Your task to perform on an android device: Go to wifi settings Image 0: 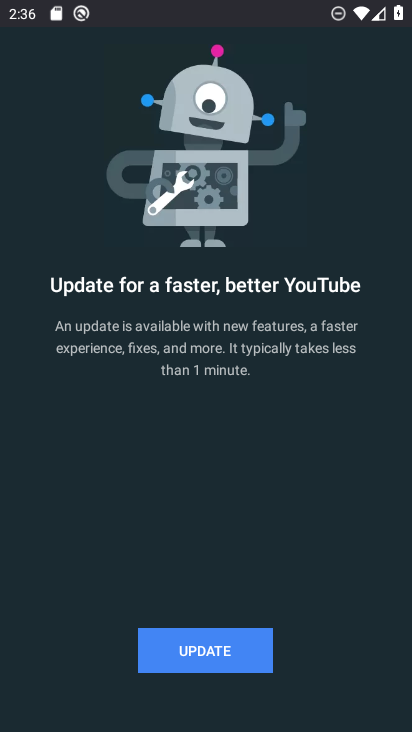
Step 0: press home button
Your task to perform on an android device: Go to wifi settings Image 1: 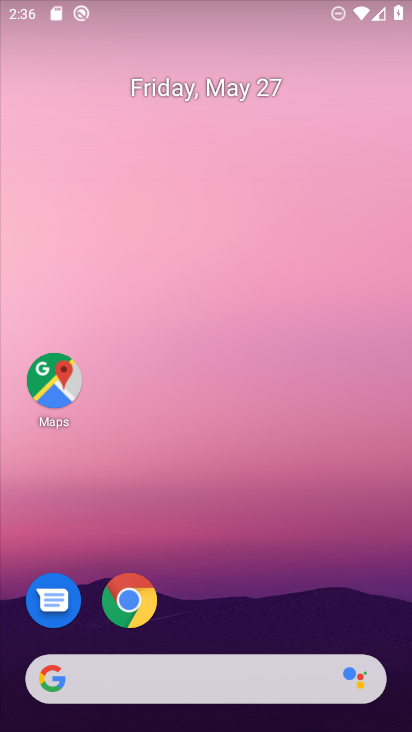
Step 1: drag from (210, 725) to (209, 59)
Your task to perform on an android device: Go to wifi settings Image 2: 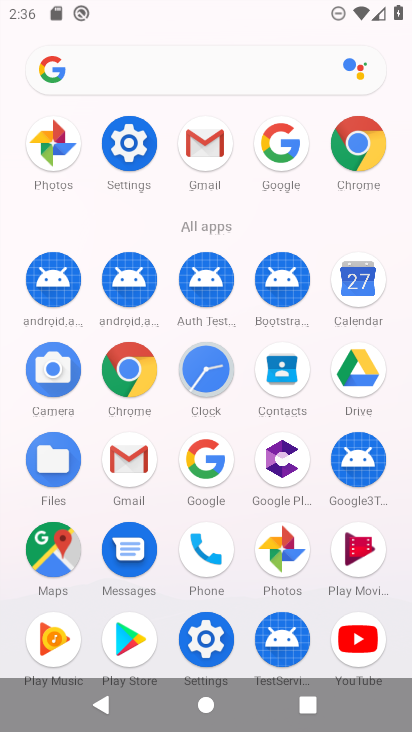
Step 2: click (123, 137)
Your task to perform on an android device: Go to wifi settings Image 3: 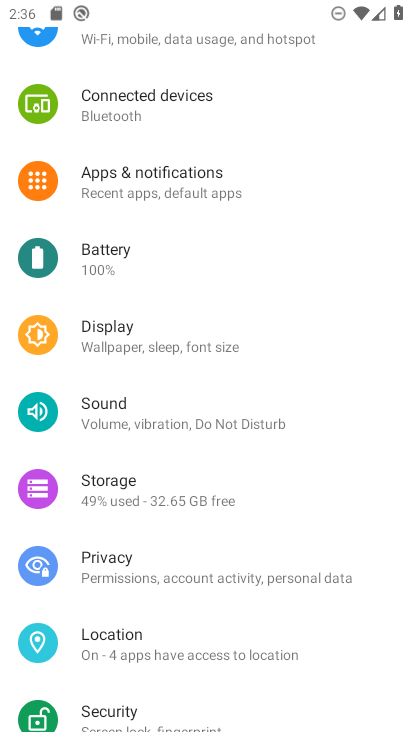
Step 3: drag from (248, 115) to (257, 541)
Your task to perform on an android device: Go to wifi settings Image 4: 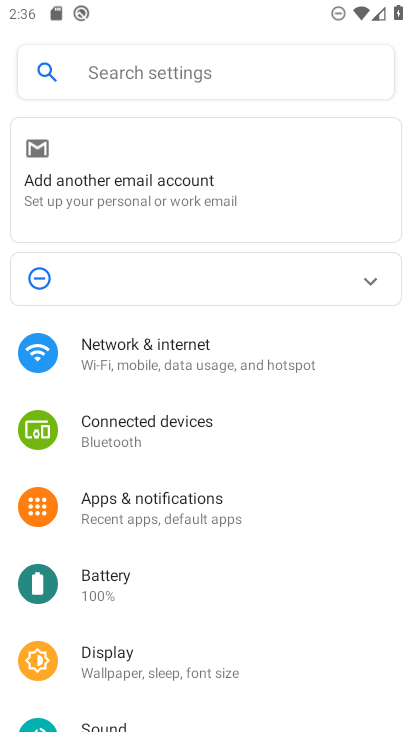
Step 4: click (147, 346)
Your task to perform on an android device: Go to wifi settings Image 5: 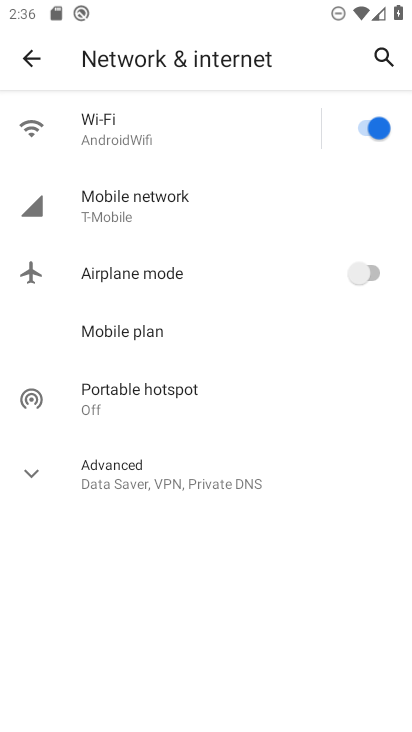
Step 5: click (101, 135)
Your task to perform on an android device: Go to wifi settings Image 6: 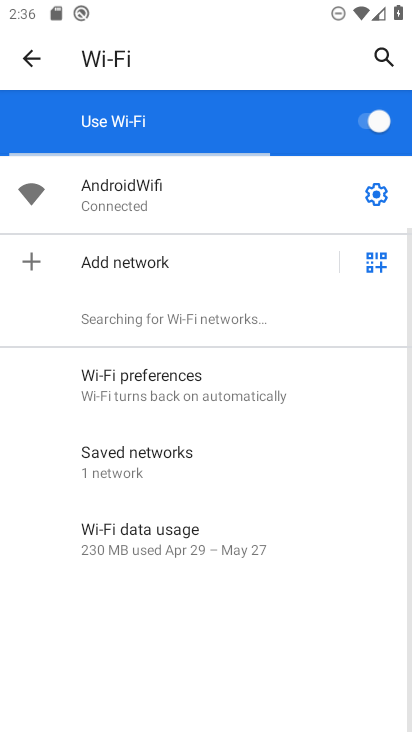
Step 6: task complete